Your task to perform on an android device: Go to Reddit.com Image 0: 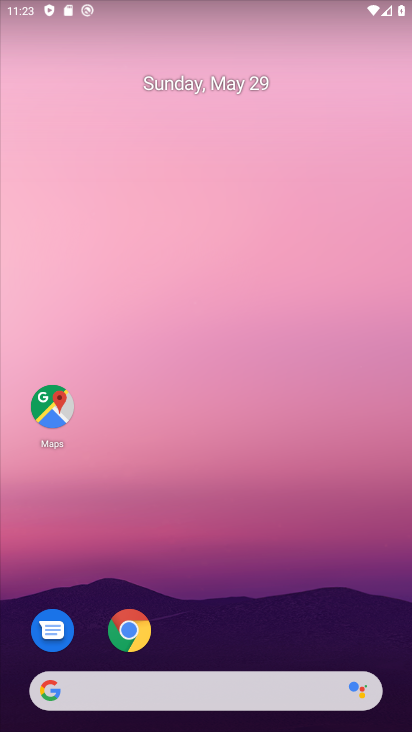
Step 0: click (132, 633)
Your task to perform on an android device: Go to Reddit.com Image 1: 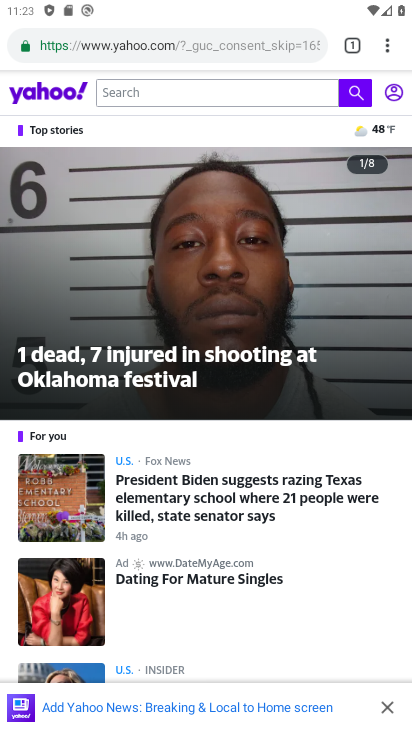
Step 1: click (348, 53)
Your task to perform on an android device: Go to Reddit.com Image 2: 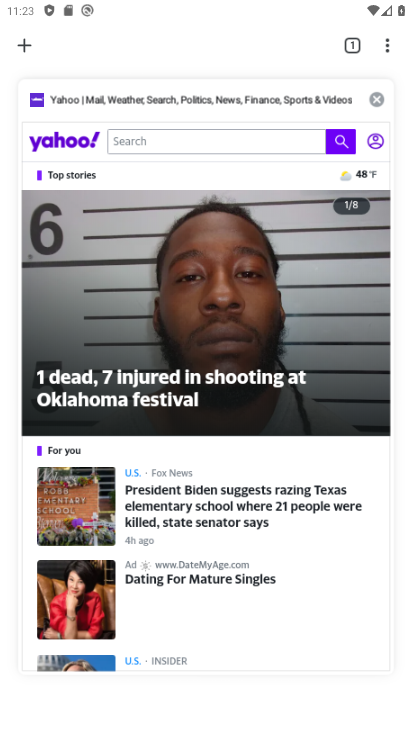
Step 2: click (381, 97)
Your task to perform on an android device: Go to Reddit.com Image 3: 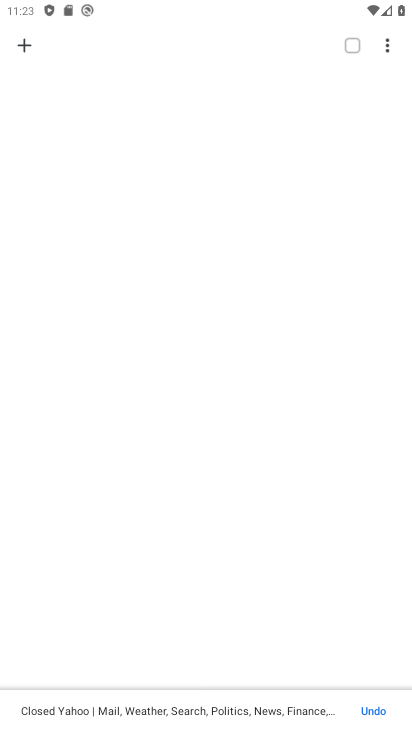
Step 3: click (29, 52)
Your task to perform on an android device: Go to Reddit.com Image 4: 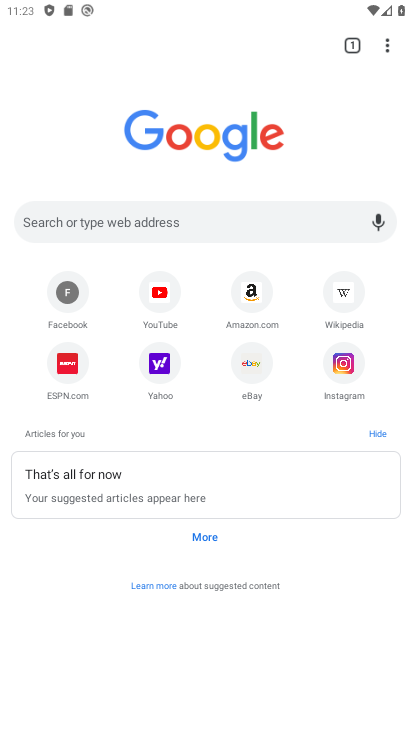
Step 4: click (245, 223)
Your task to perform on an android device: Go to Reddit.com Image 5: 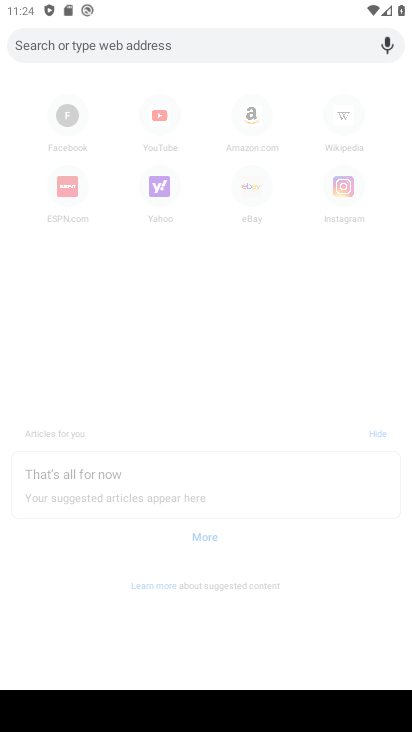
Step 5: type "reddit.com"
Your task to perform on an android device: Go to Reddit.com Image 6: 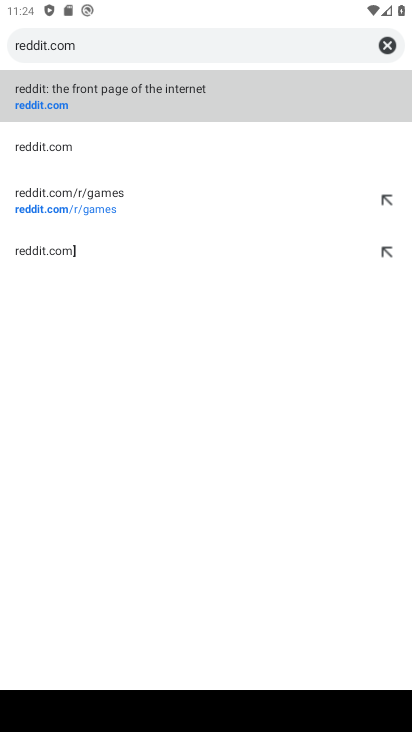
Step 6: click (95, 106)
Your task to perform on an android device: Go to Reddit.com Image 7: 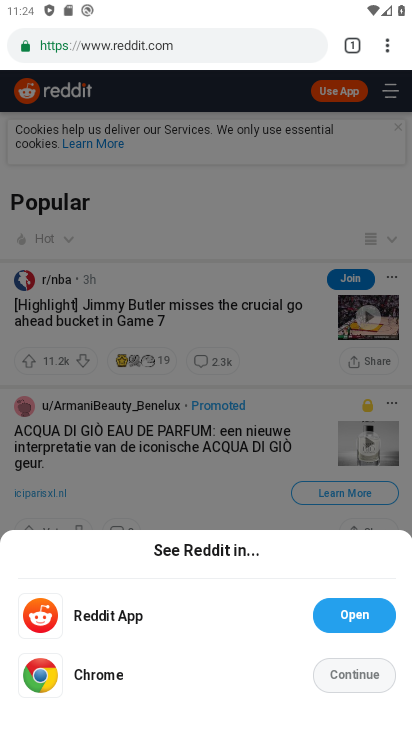
Step 7: click (369, 681)
Your task to perform on an android device: Go to Reddit.com Image 8: 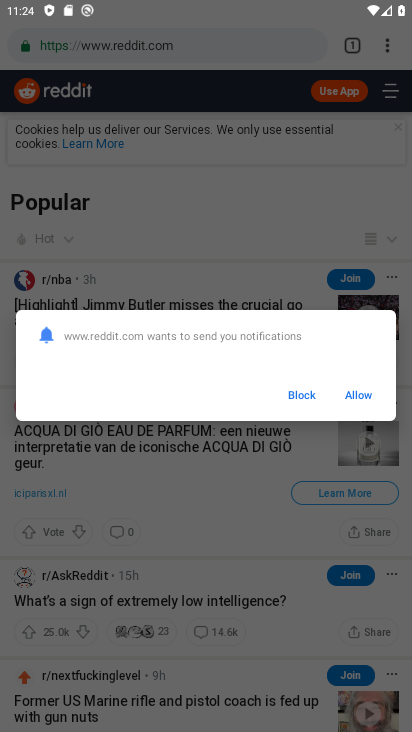
Step 8: click (355, 399)
Your task to perform on an android device: Go to Reddit.com Image 9: 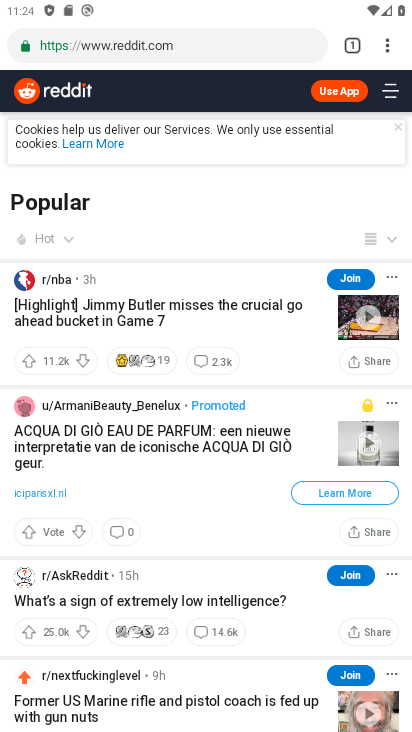
Step 9: task complete